Your task to perform on an android device: Open the phone app and click the voicemail tab. Image 0: 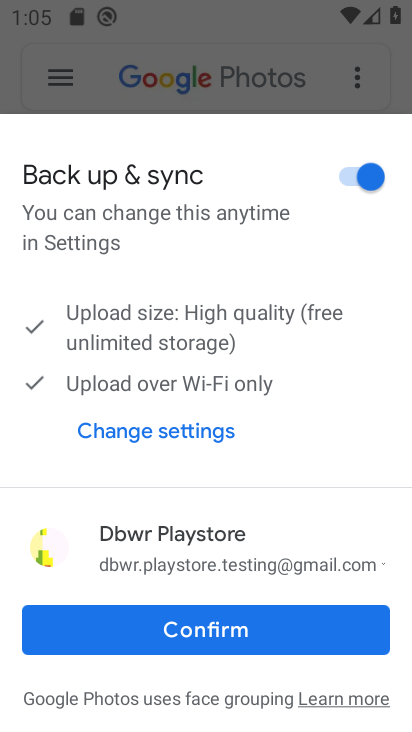
Step 0: press home button
Your task to perform on an android device: Open the phone app and click the voicemail tab. Image 1: 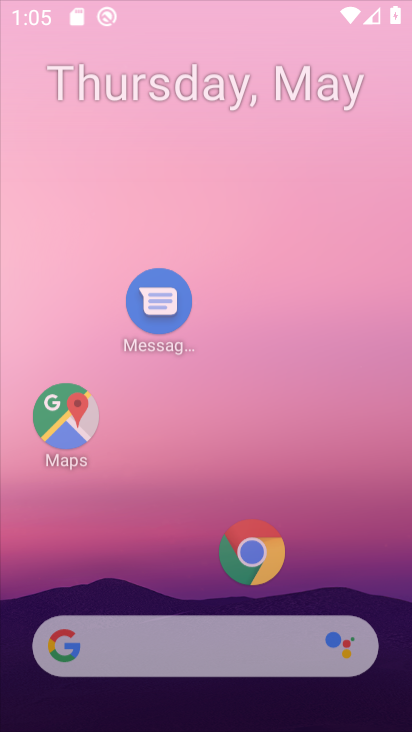
Step 1: drag from (190, 605) to (195, 28)
Your task to perform on an android device: Open the phone app and click the voicemail tab. Image 2: 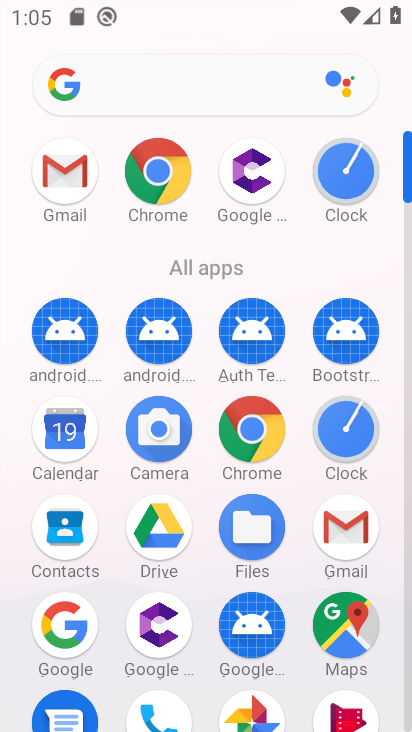
Step 2: drag from (215, 682) to (210, 203)
Your task to perform on an android device: Open the phone app and click the voicemail tab. Image 3: 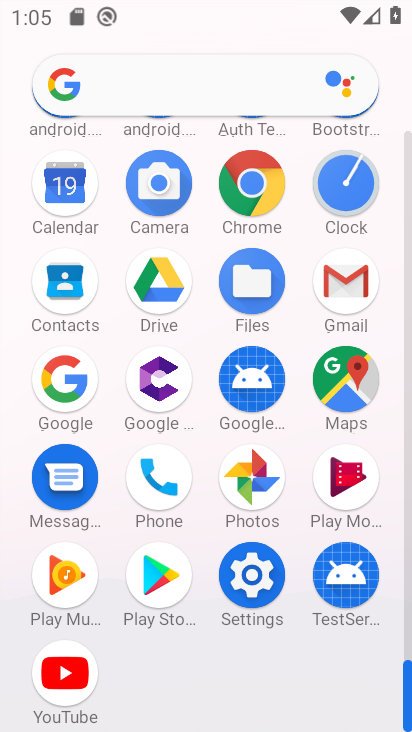
Step 3: click (157, 481)
Your task to perform on an android device: Open the phone app and click the voicemail tab. Image 4: 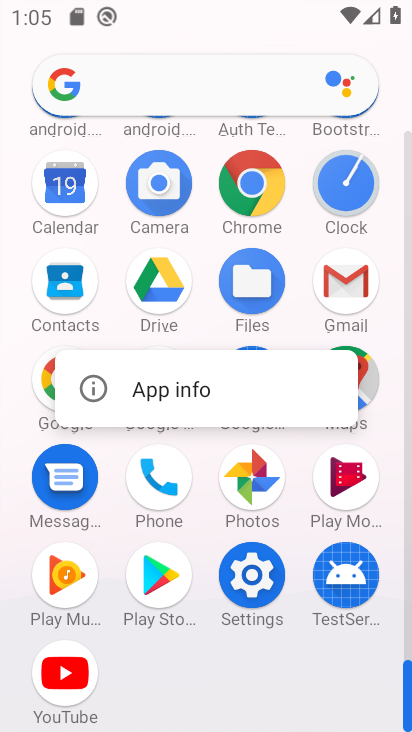
Step 4: click (152, 387)
Your task to perform on an android device: Open the phone app and click the voicemail tab. Image 5: 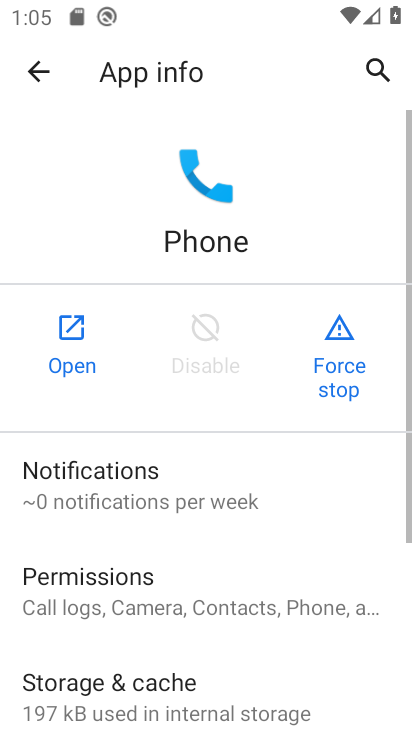
Step 5: click (65, 343)
Your task to perform on an android device: Open the phone app and click the voicemail tab. Image 6: 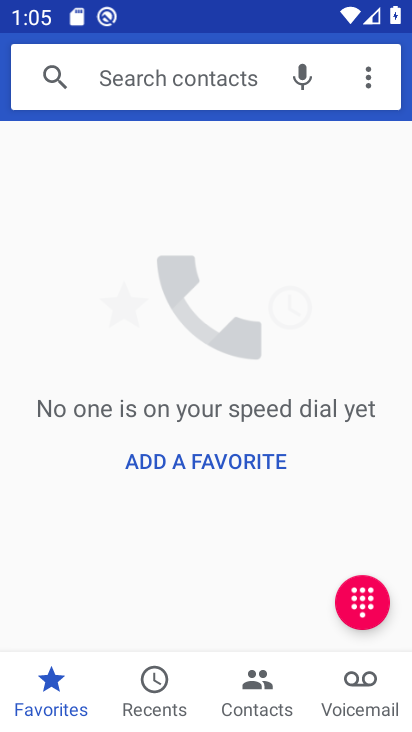
Step 6: click (360, 690)
Your task to perform on an android device: Open the phone app and click the voicemail tab. Image 7: 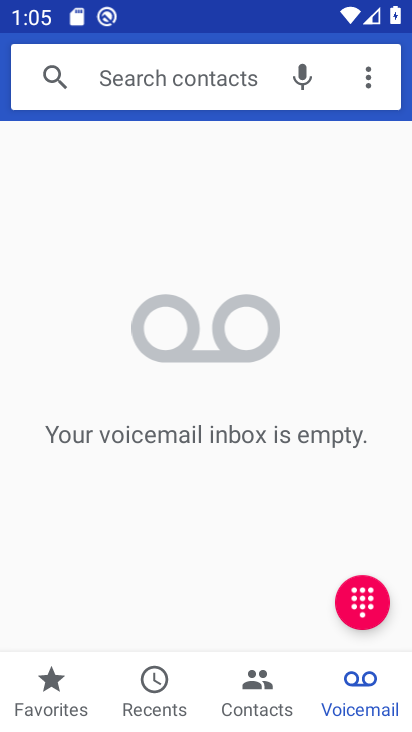
Step 7: task complete